Your task to perform on an android device: Open Google Chrome and open the bookmarks view Image 0: 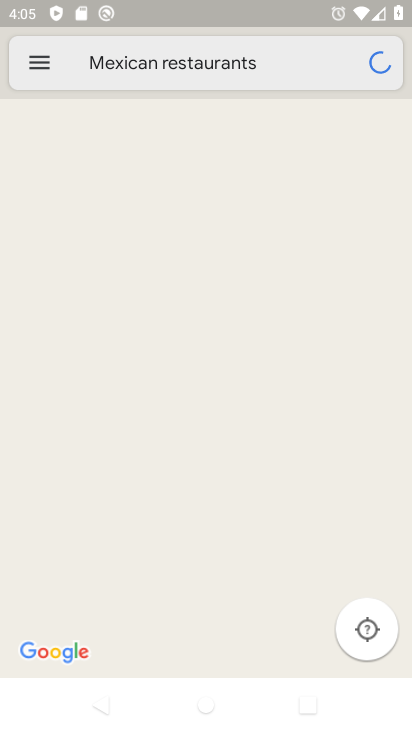
Step 0: press home button
Your task to perform on an android device: Open Google Chrome and open the bookmarks view Image 1: 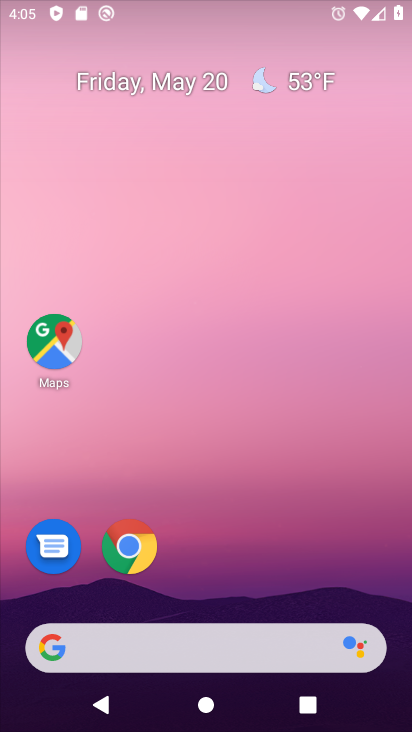
Step 1: drag from (288, 533) to (250, 167)
Your task to perform on an android device: Open Google Chrome and open the bookmarks view Image 2: 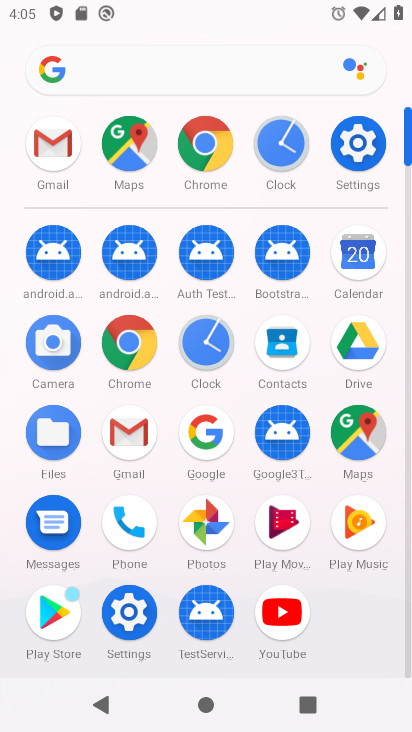
Step 2: click (130, 343)
Your task to perform on an android device: Open Google Chrome and open the bookmarks view Image 3: 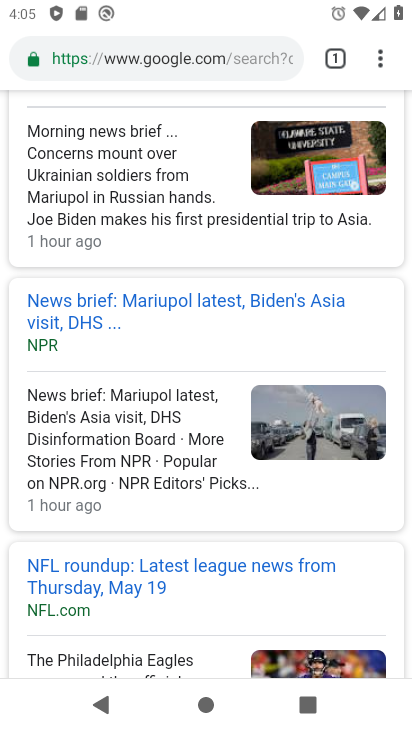
Step 3: task complete